Your task to perform on an android device: Add bose soundlink mini to the cart on newegg Image 0: 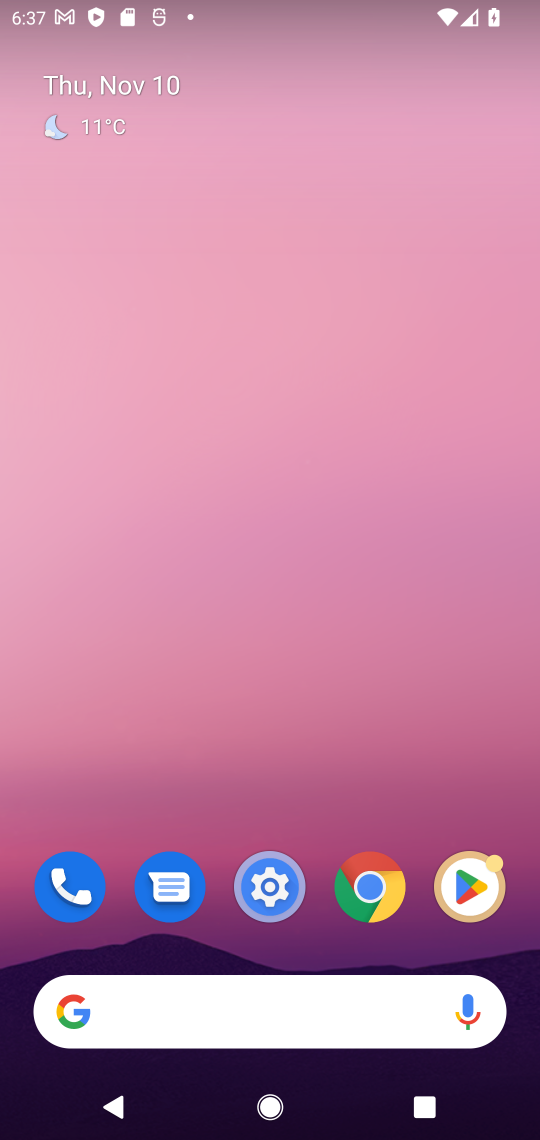
Step 0: click (123, 987)
Your task to perform on an android device: Add bose soundlink mini to the cart on newegg Image 1: 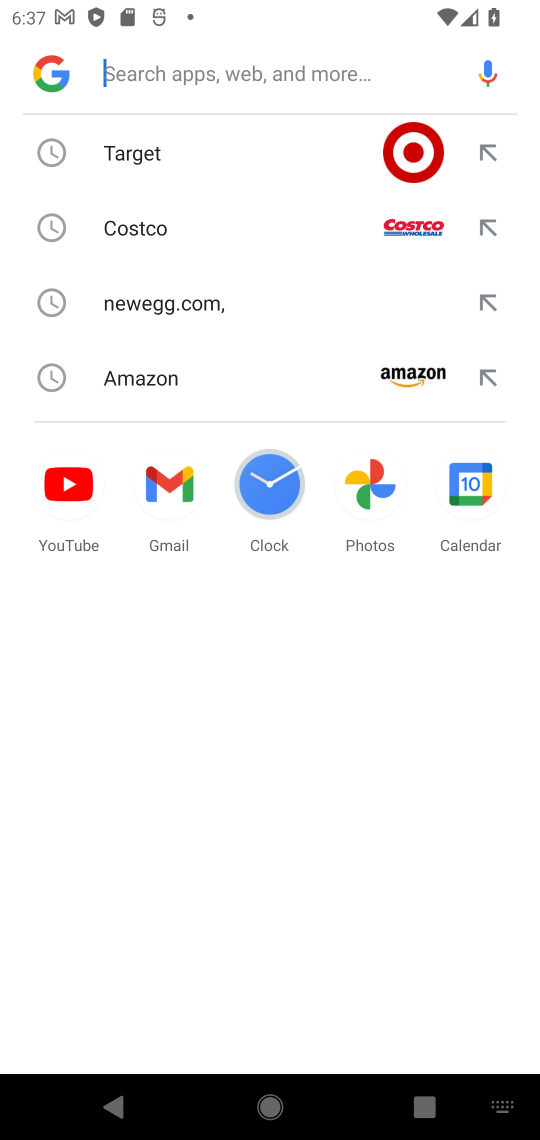
Step 1: click (153, 293)
Your task to perform on an android device: Add bose soundlink mini to the cart on newegg Image 2: 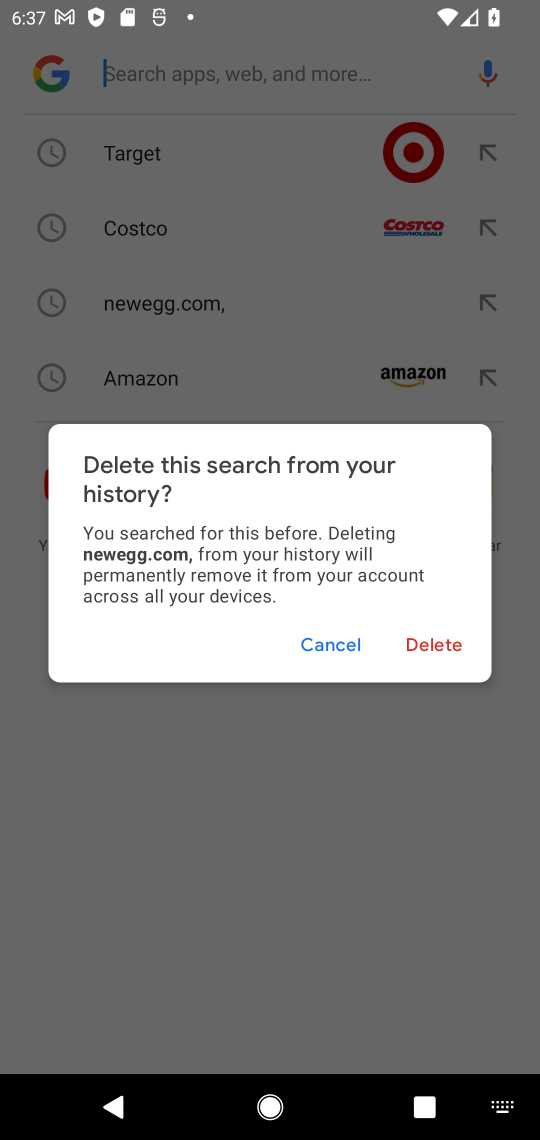
Step 2: click (324, 634)
Your task to perform on an android device: Add bose soundlink mini to the cart on newegg Image 3: 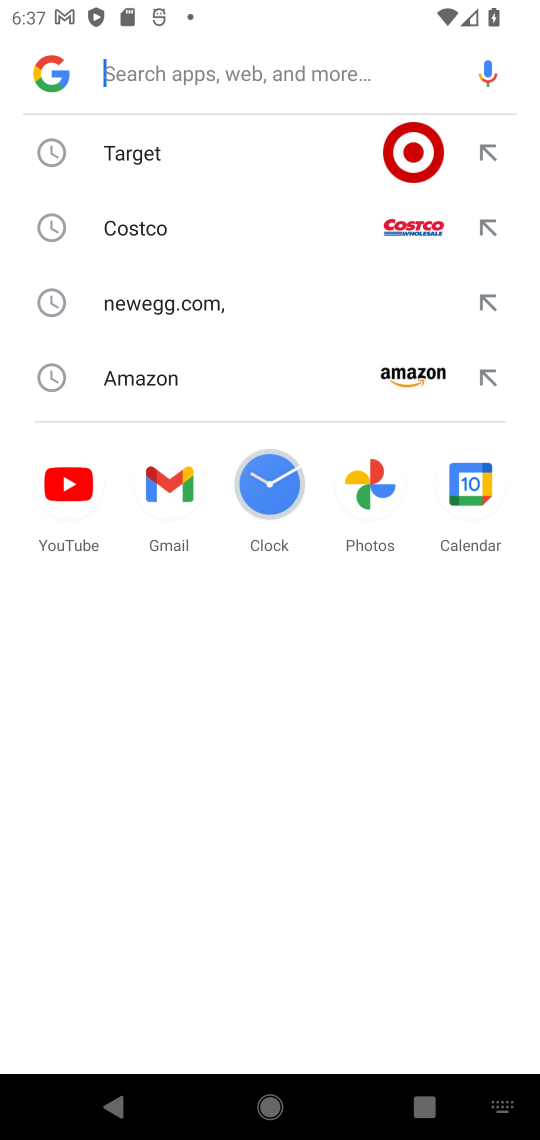
Step 3: click (131, 306)
Your task to perform on an android device: Add bose soundlink mini to the cart on newegg Image 4: 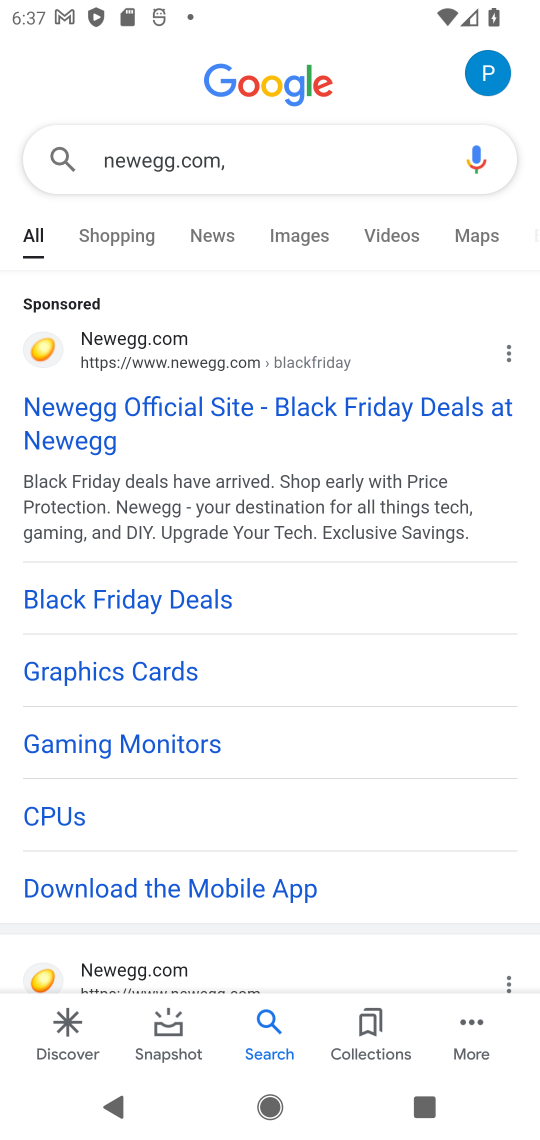
Step 4: click (124, 409)
Your task to perform on an android device: Add bose soundlink mini to the cart on newegg Image 5: 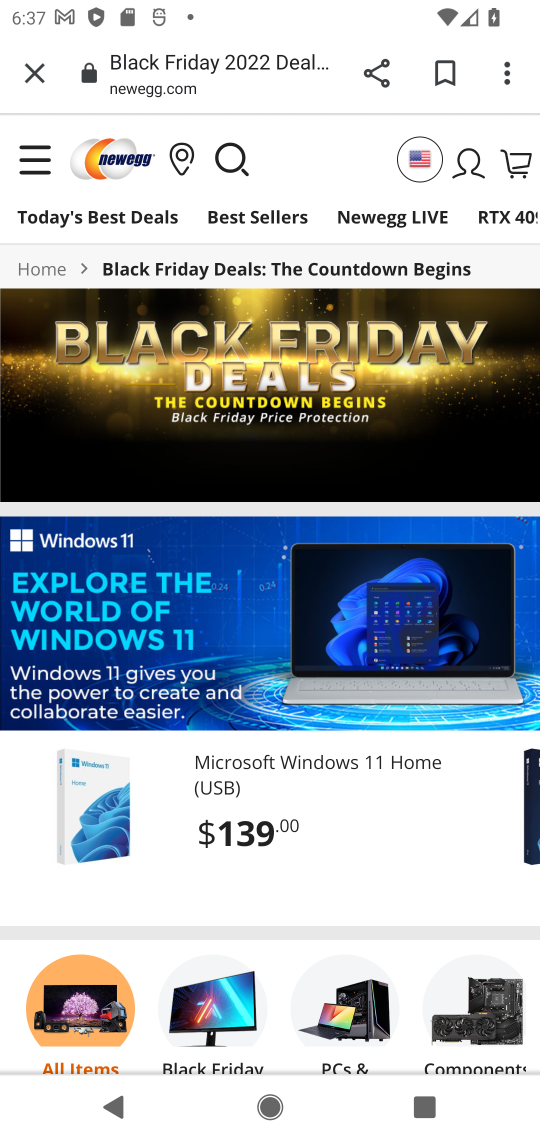
Step 5: click (227, 155)
Your task to perform on an android device: Add bose soundlink mini to the cart on newegg Image 6: 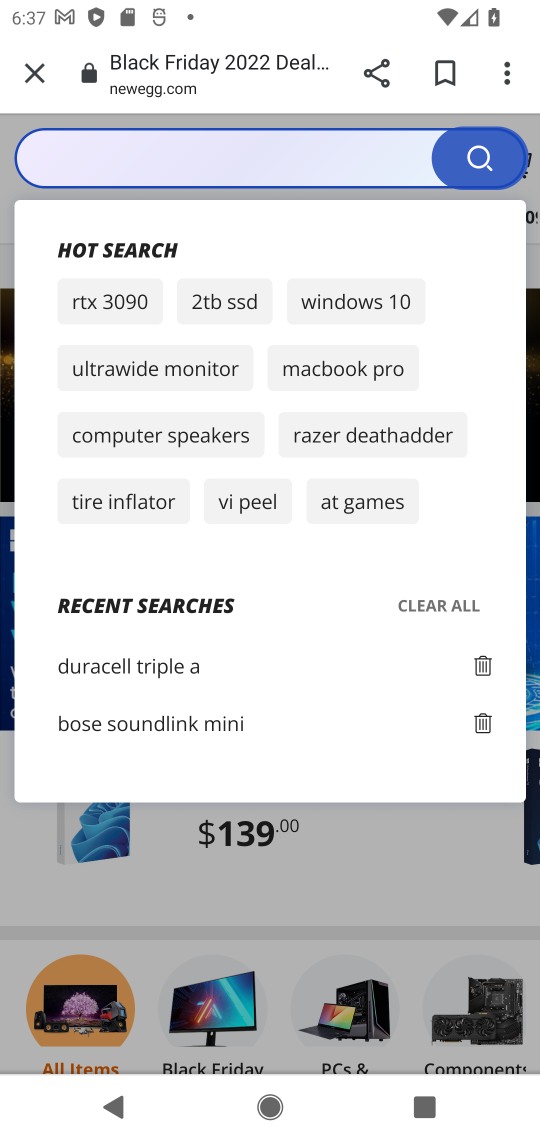
Step 6: click (114, 149)
Your task to perform on an android device: Add bose soundlink mini to the cart on newegg Image 7: 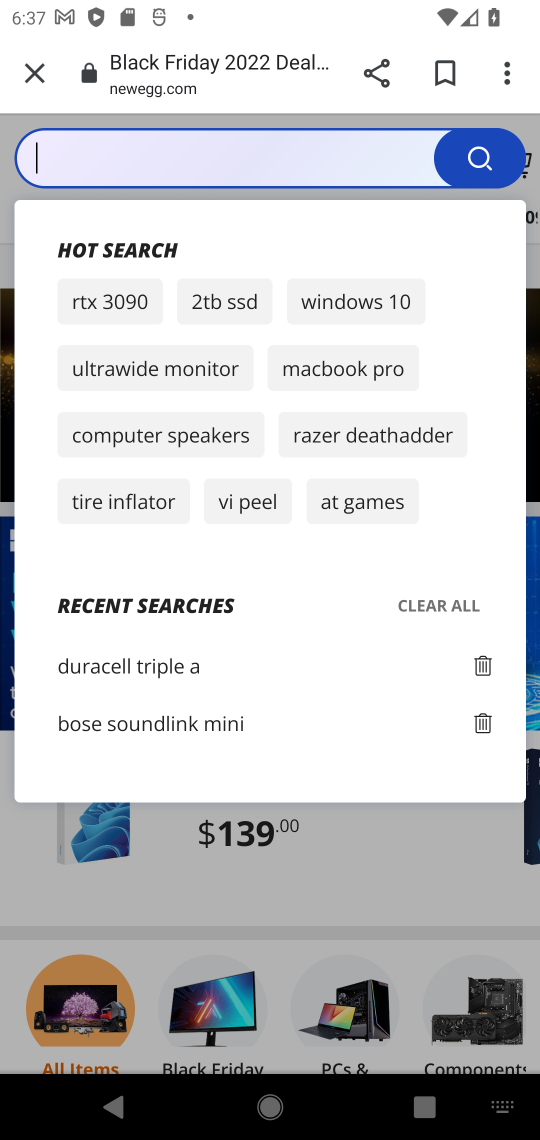
Step 7: type "bose soundlink mini"
Your task to perform on an android device: Add bose soundlink mini to the cart on newegg Image 8: 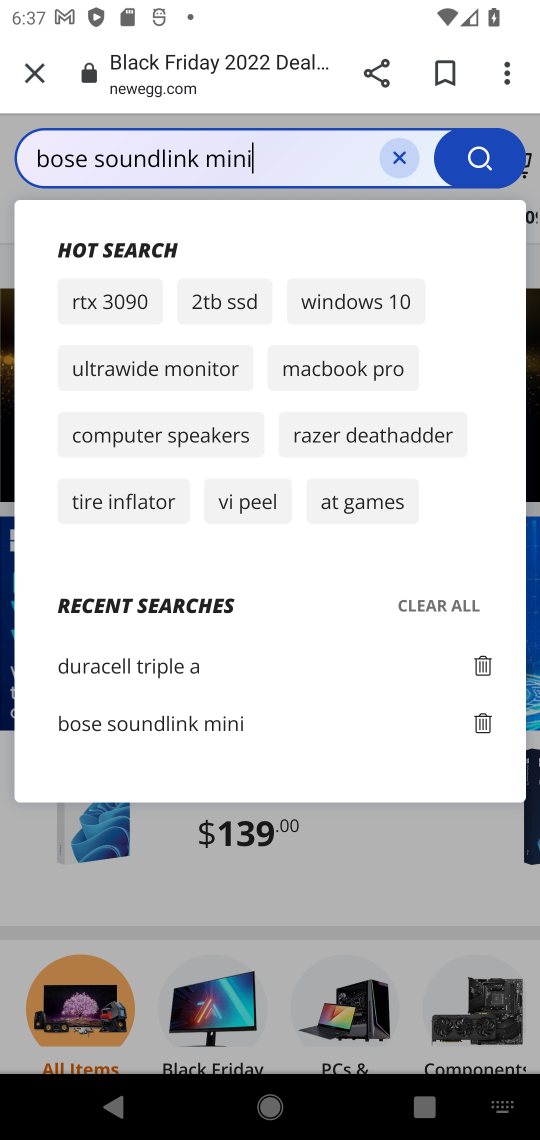
Step 8: type ""
Your task to perform on an android device: Add bose soundlink mini to the cart on newegg Image 9: 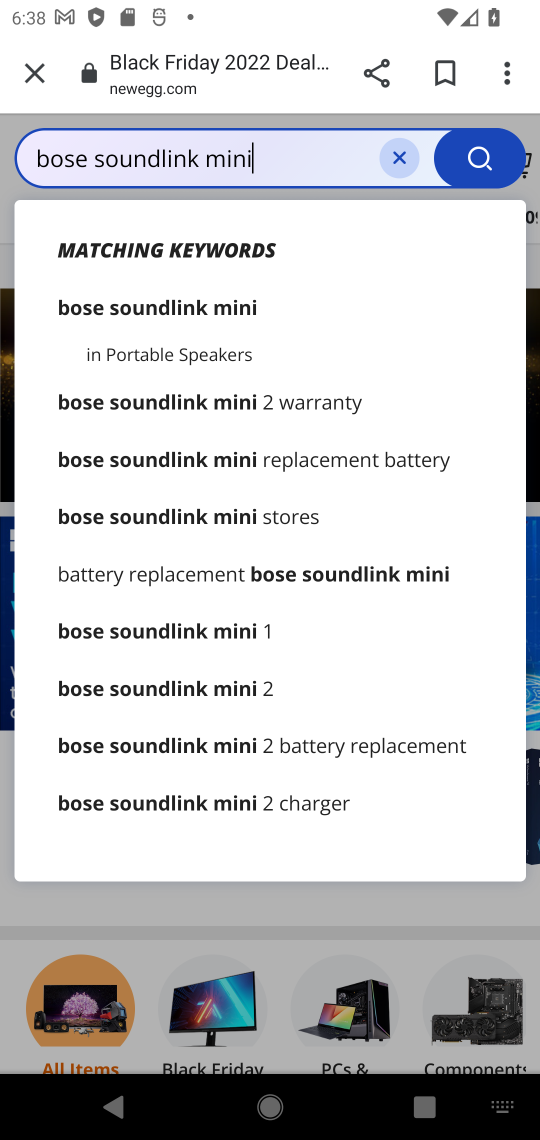
Step 9: click (172, 308)
Your task to perform on an android device: Add bose soundlink mini to the cart on newegg Image 10: 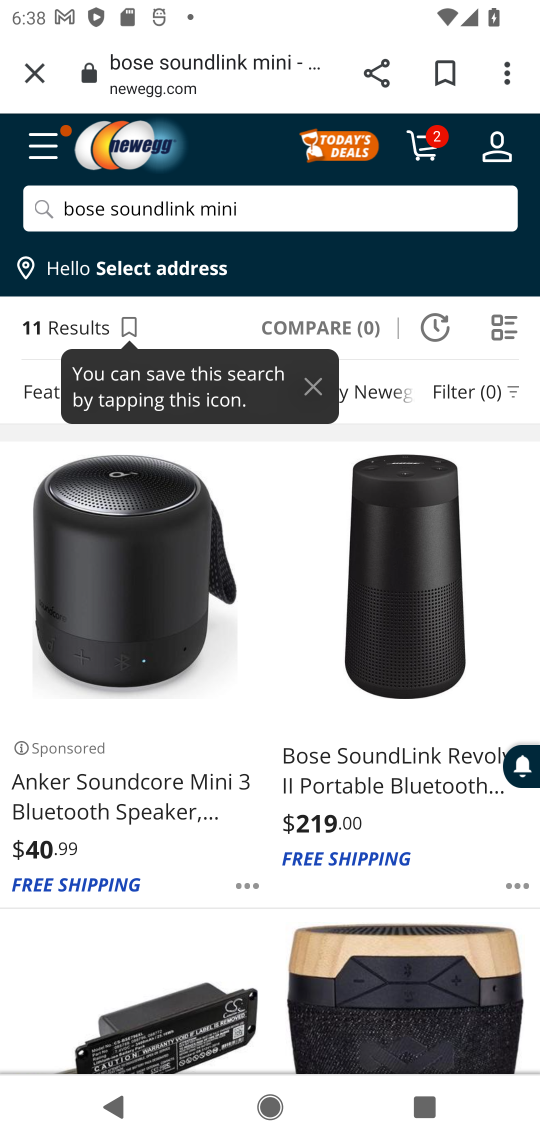
Step 10: click (154, 563)
Your task to perform on an android device: Add bose soundlink mini to the cart on newegg Image 11: 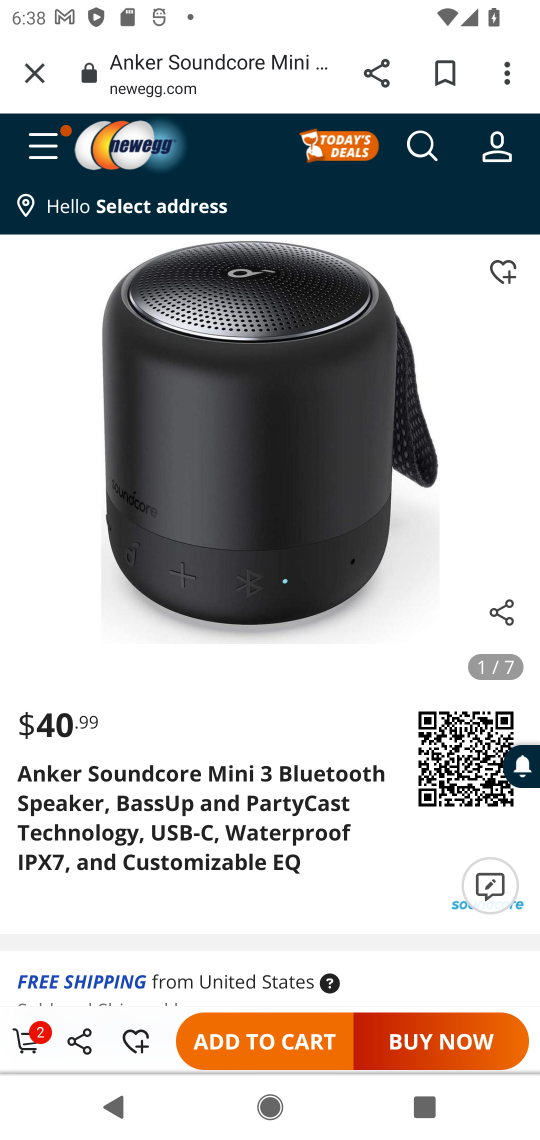
Step 11: click (243, 1045)
Your task to perform on an android device: Add bose soundlink mini to the cart on newegg Image 12: 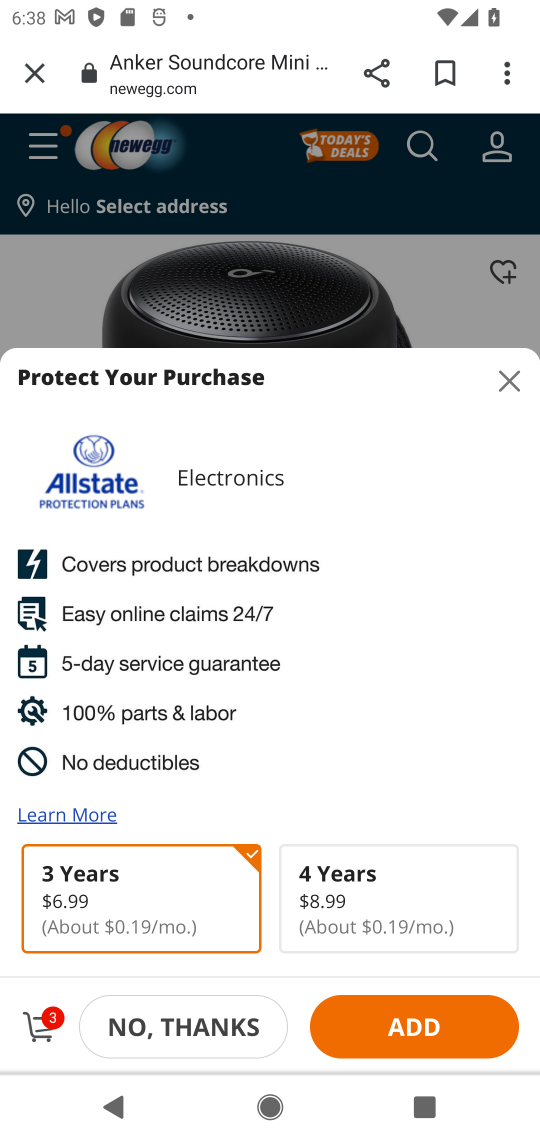
Step 12: click (514, 377)
Your task to perform on an android device: Add bose soundlink mini to the cart on newegg Image 13: 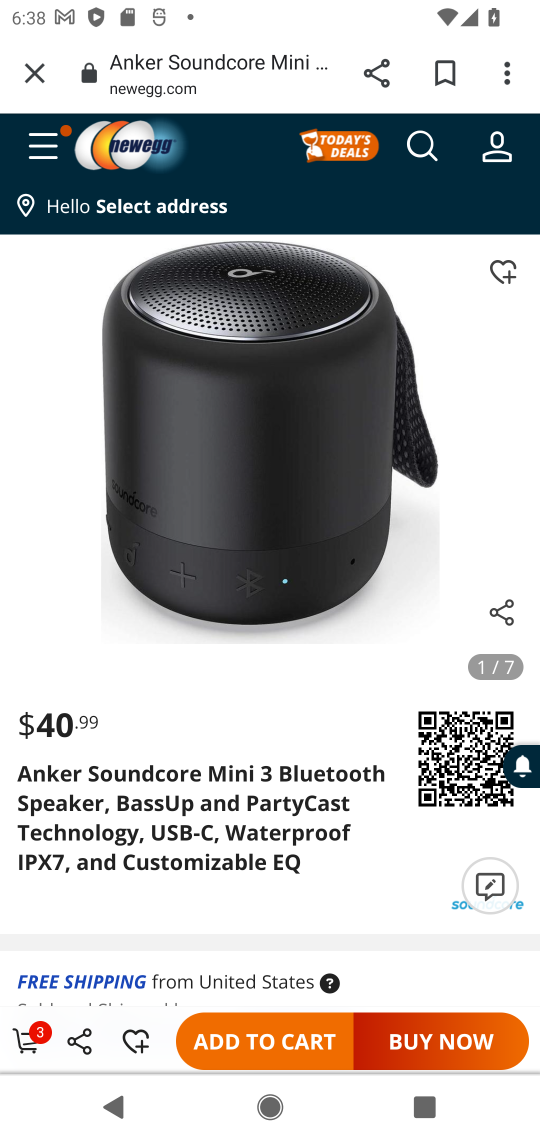
Step 13: task complete